Your task to perform on an android device: toggle location history Image 0: 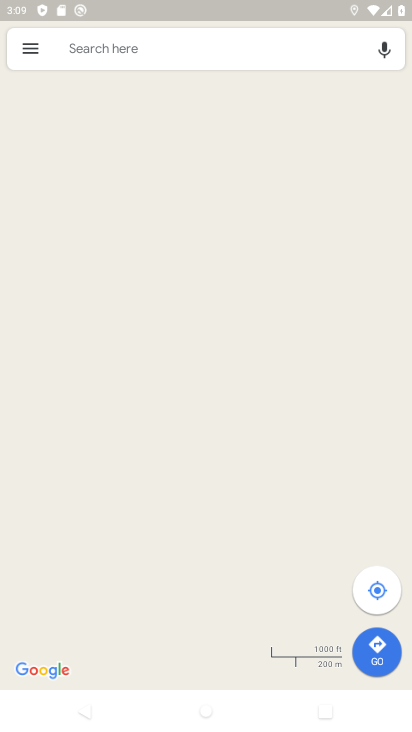
Step 0: press home button
Your task to perform on an android device: toggle location history Image 1: 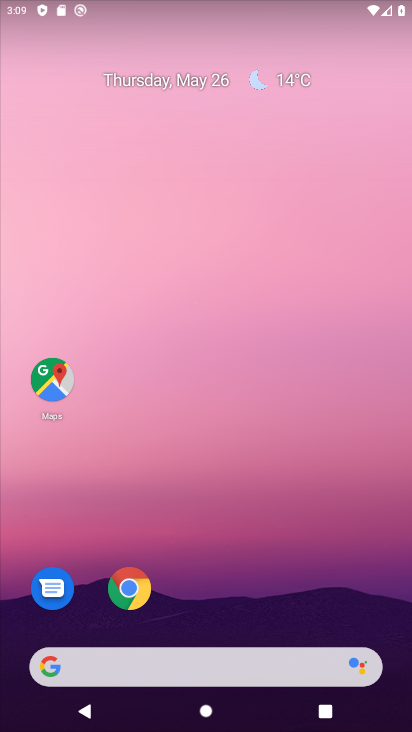
Step 1: drag from (254, 553) to (390, 9)
Your task to perform on an android device: toggle location history Image 2: 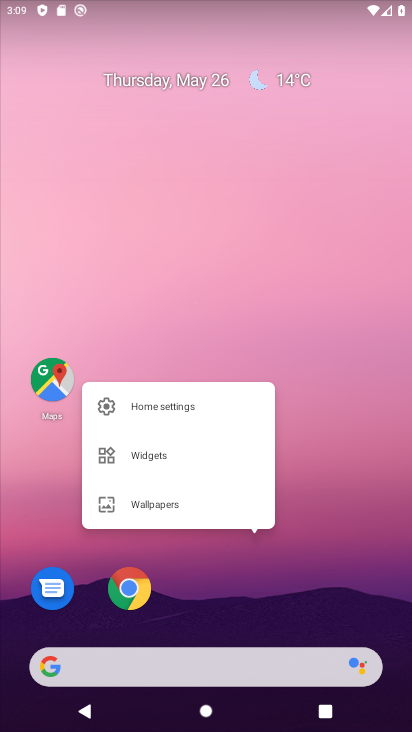
Step 2: click (347, 271)
Your task to perform on an android device: toggle location history Image 3: 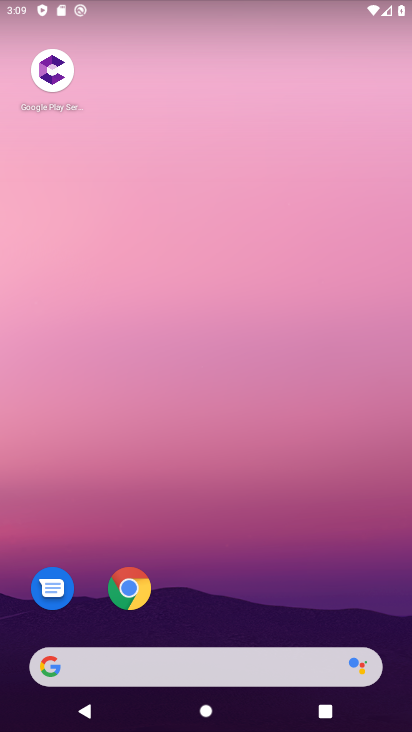
Step 3: drag from (222, 563) to (242, 8)
Your task to perform on an android device: toggle location history Image 4: 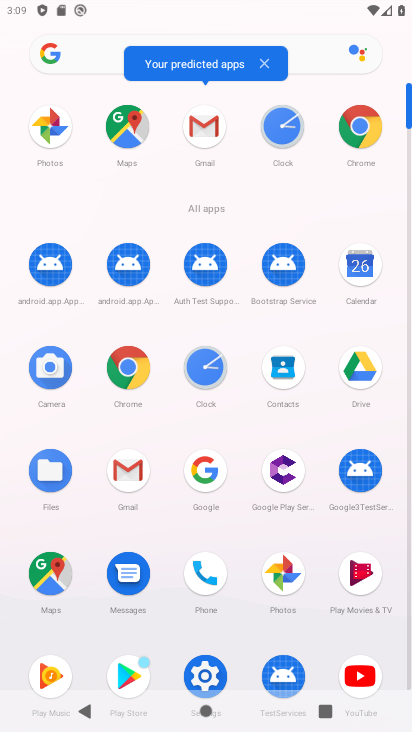
Step 4: click (206, 670)
Your task to perform on an android device: toggle location history Image 5: 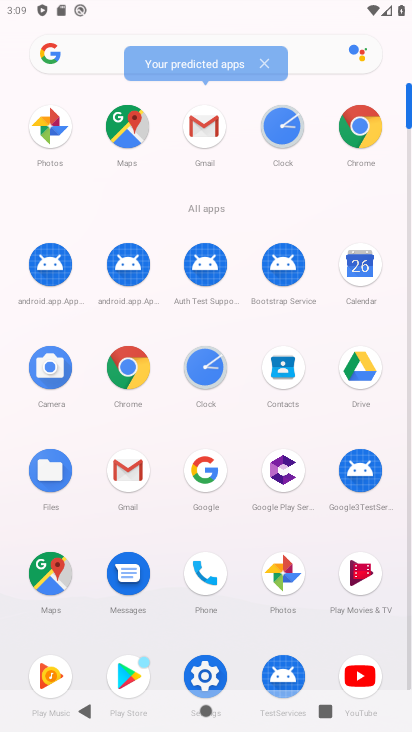
Step 5: click (206, 670)
Your task to perform on an android device: toggle location history Image 6: 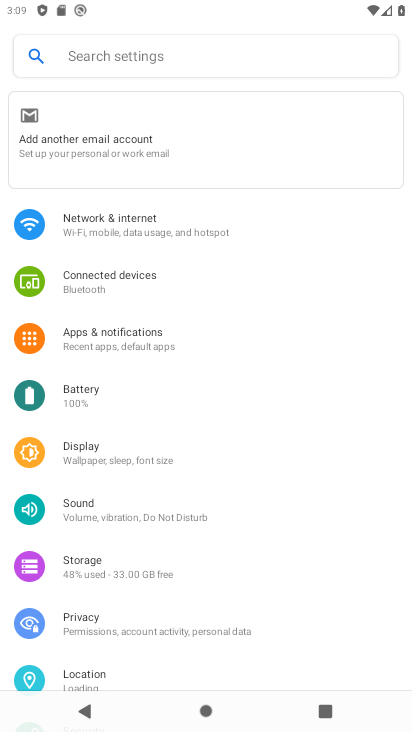
Step 6: click (153, 681)
Your task to perform on an android device: toggle location history Image 7: 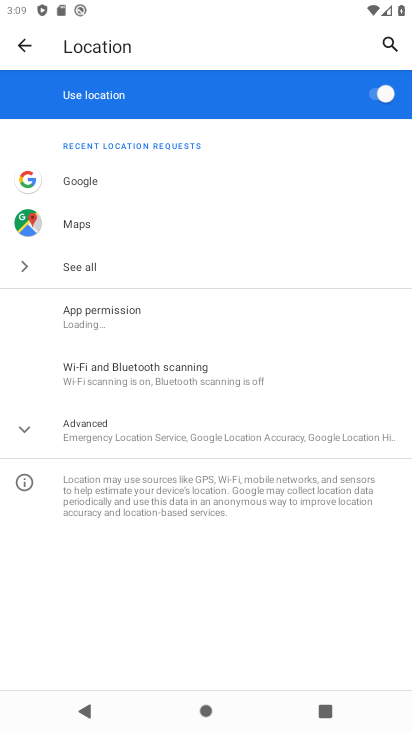
Step 7: click (180, 419)
Your task to perform on an android device: toggle location history Image 8: 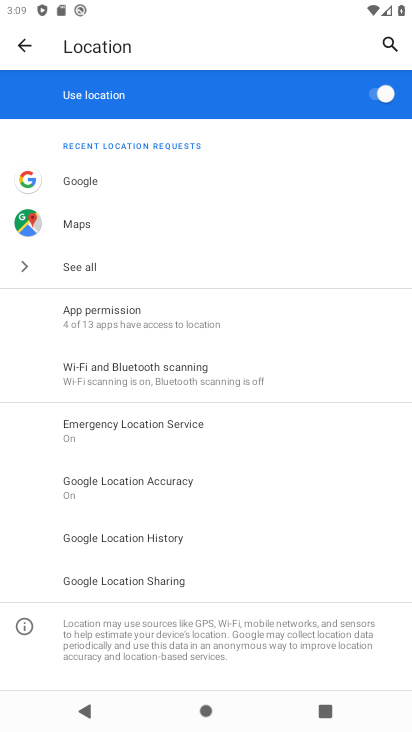
Step 8: click (199, 540)
Your task to perform on an android device: toggle location history Image 9: 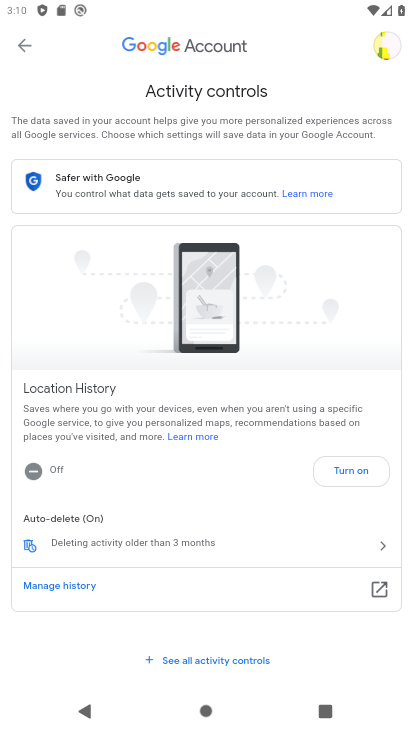
Step 9: task complete